Your task to perform on an android device: check battery use Image 0: 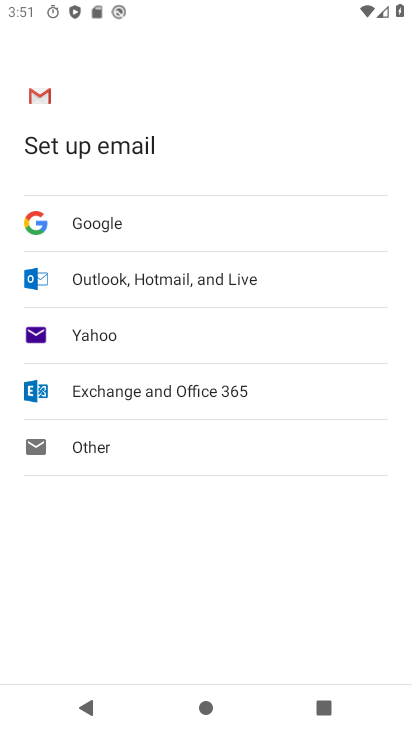
Step 0: press home button
Your task to perform on an android device: check battery use Image 1: 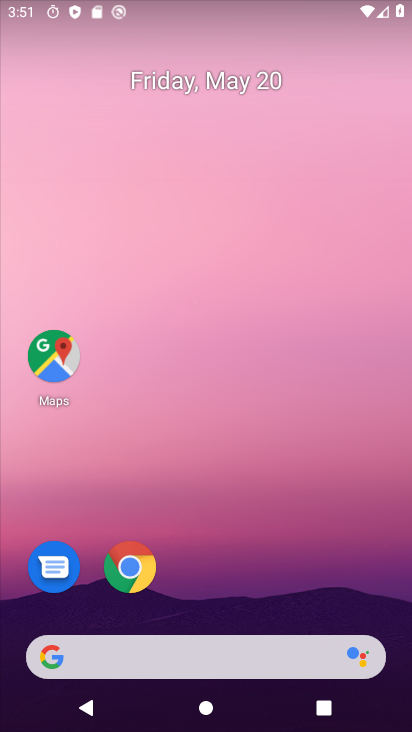
Step 1: drag from (176, 598) to (269, 9)
Your task to perform on an android device: check battery use Image 2: 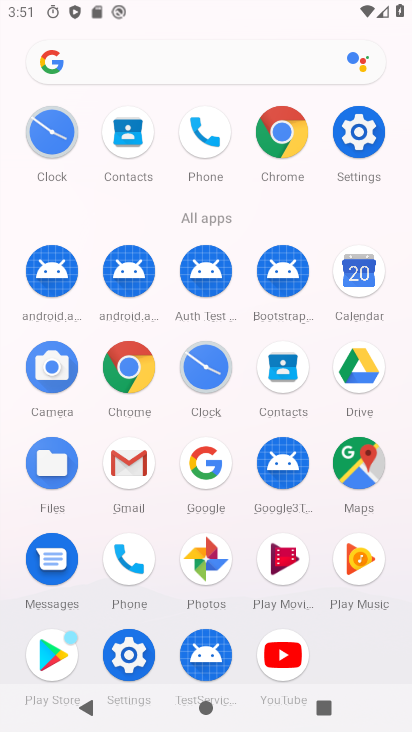
Step 2: click (350, 157)
Your task to perform on an android device: check battery use Image 3: 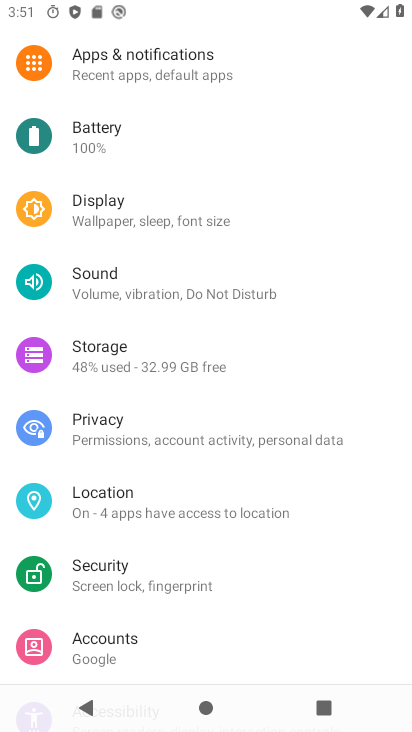
Step 3: click (123, 147)
Your task to perform on an android device: check battery use Image 4: 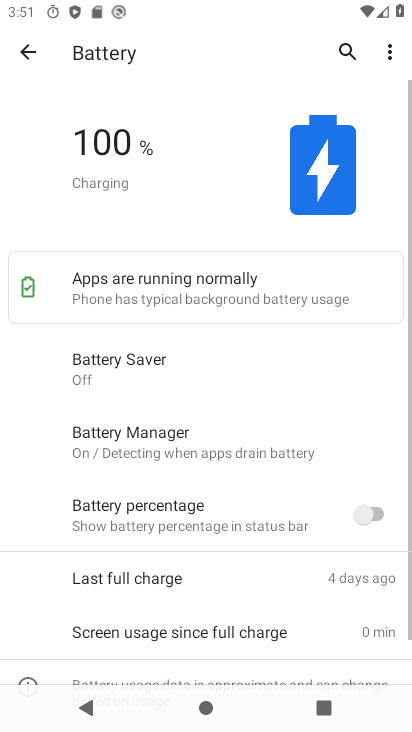
Step 4: click (392, 54)
Your task to perform on an android device: check battery use Image 5: 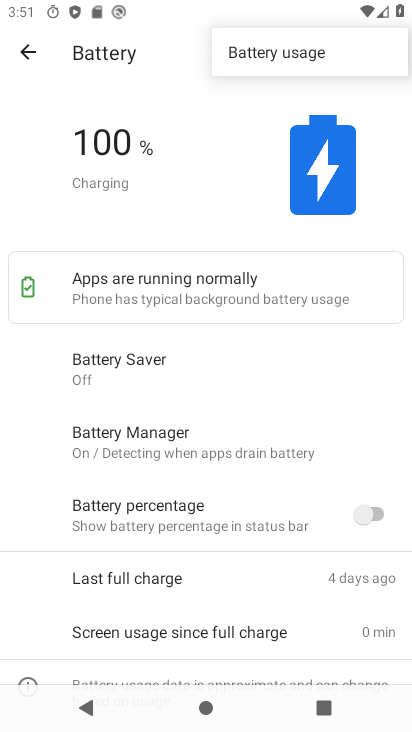
Step 5: click (324, 59)
Your task to perform on an android device: check battery use Image 6: 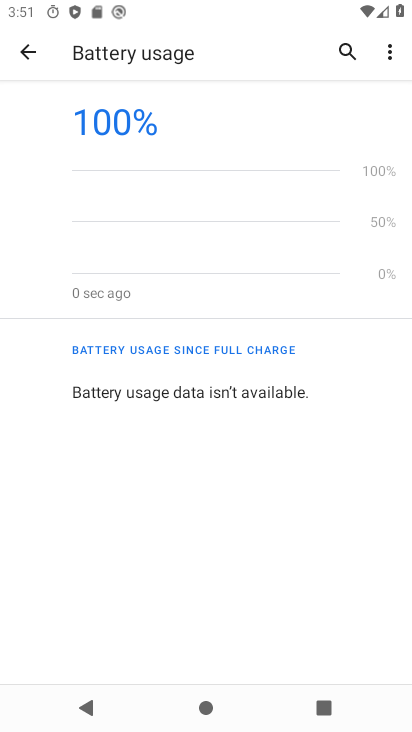
Step 6: task complete